Your task to perform on an android device: turn on the 12-hour format for clock Image 0: 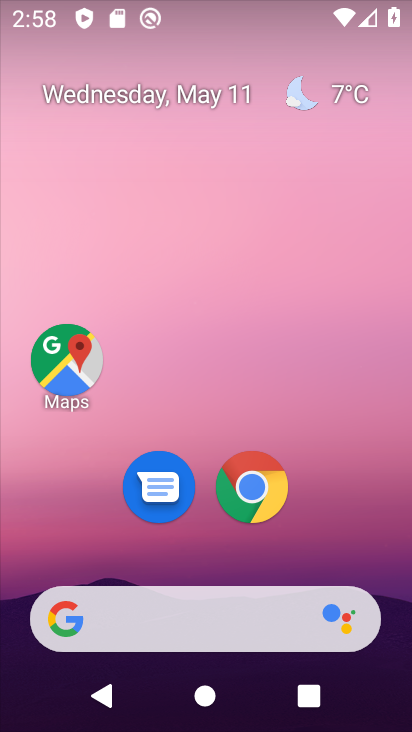
Step 0: drag from (274, 609) to (269, 43)
Your task to perform on an android device: turn on the 12-hour format for clock Image 1: 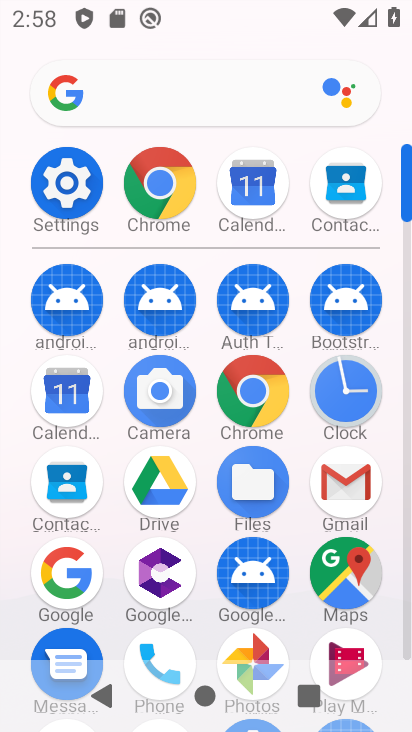
Step 1: click (351, 385)
Your task to perform on an android device: turn on the 12-hour format for clock Image 2: 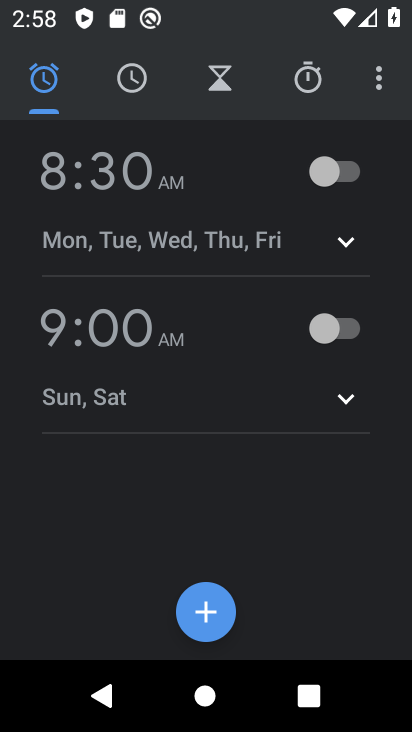
Step 2: click (378, 88)
Your task to perform on an android device: turn on the 12-hour format for clock Image 3: 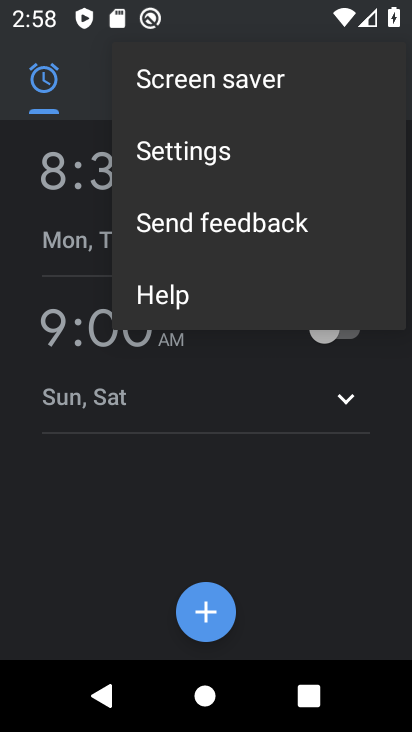
Step 3: click (288, 147)
Your task to perform on an android device: turn on the 12-hour format for clock Image 4: 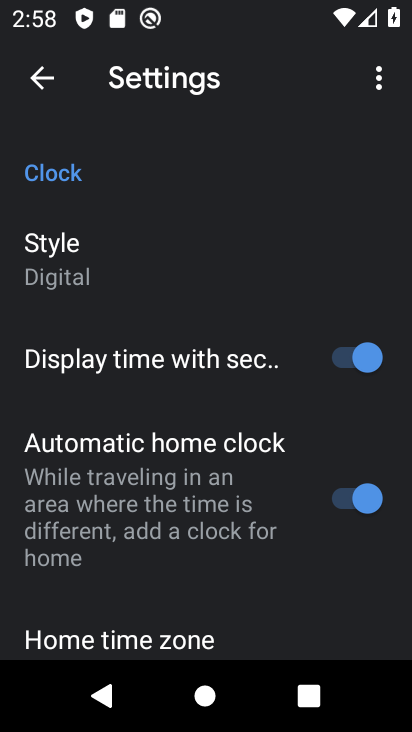
Step 4: drag from (239, 605) to (253, 156)
Your task to perform on an android device: turn on the 12-hour format for clock Image 5: 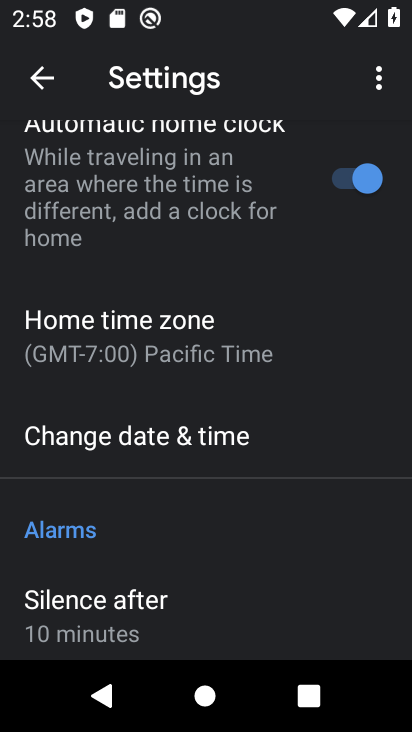
Step 5: click (183, 449)
Your task to perform on an android device: turn on the 12-hour format for clock Image 6: 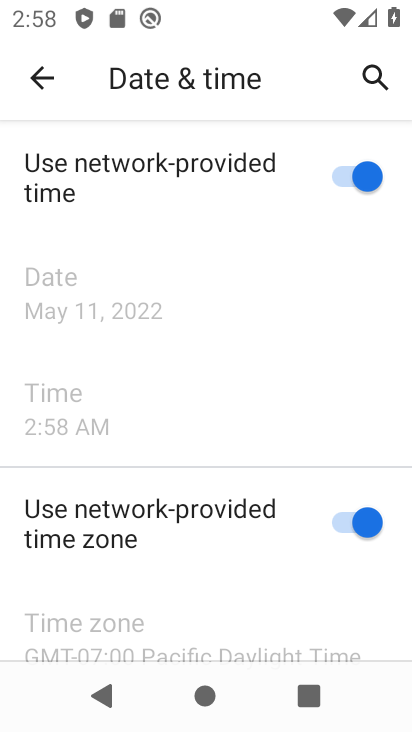
Step 6: drag from (234, 609) to (239, 95)
Your task to perform on an android device: turn on the 12-hour format for clock Image 7: 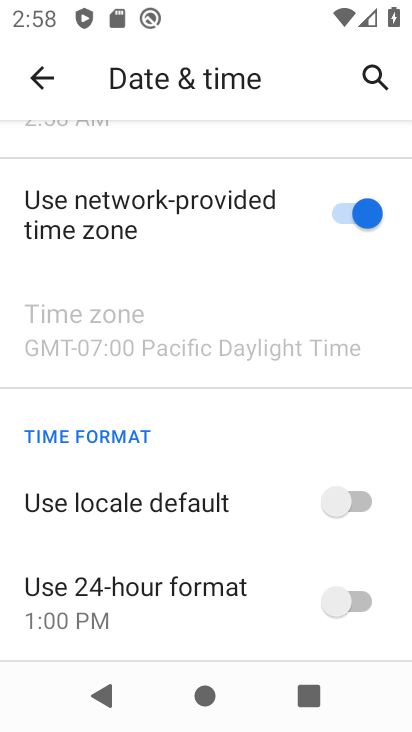
Step 7: click (290, 615)
Your task to perform on an android device: turn on the 12-hour format for clock Image 8: 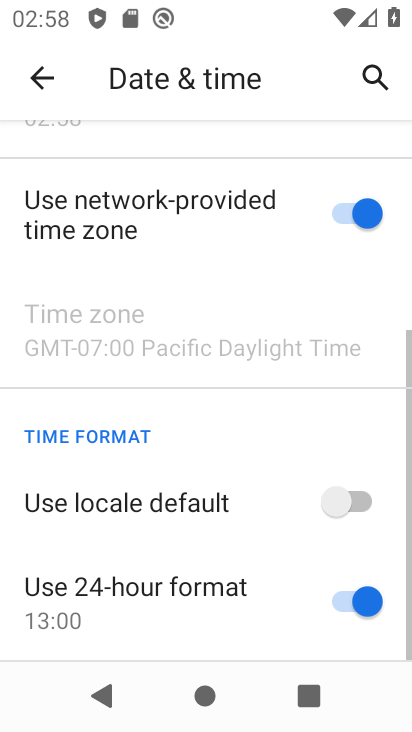
Step 8: click (344, 601)
Your task to perform on an android device: turn on the 12-hour format for clock Image 9: 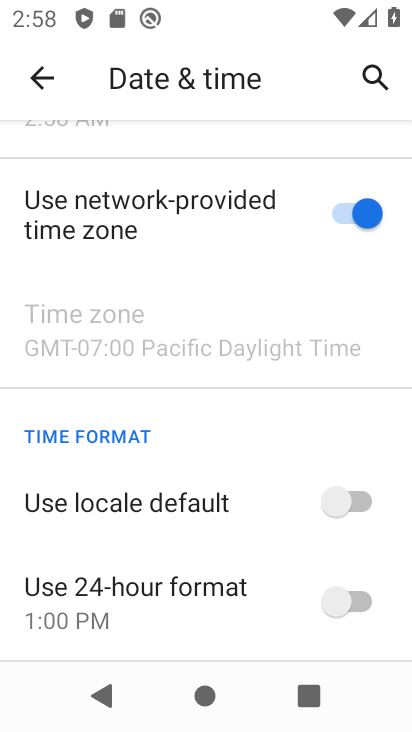
Step 9: task complete